Your task to perform on an android device: open app "Messenger Lite" (install if not already installed) and enter user name: "cataclysmic@outlook.com" and password: "victoriously" Image 0: 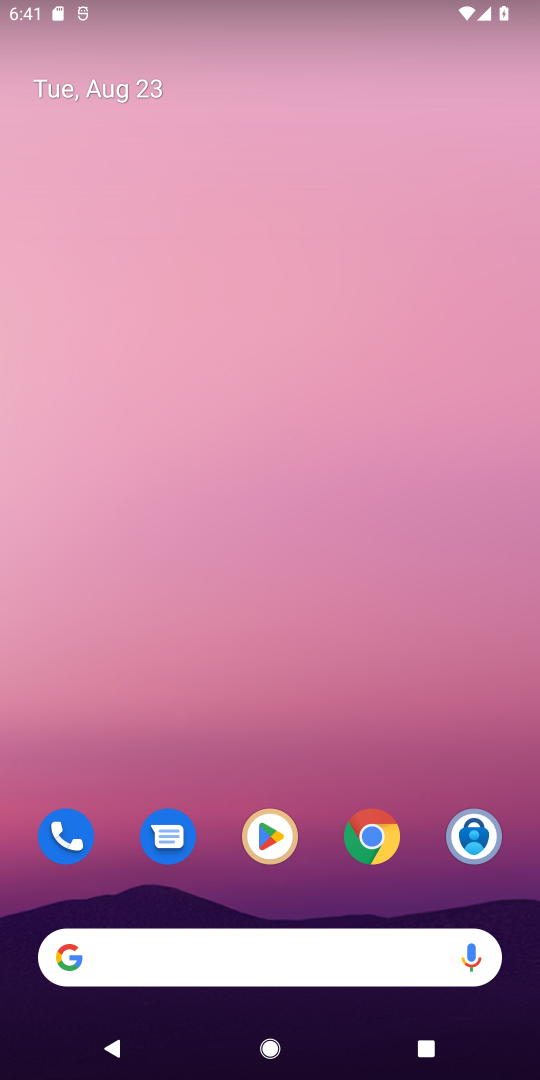
Step 0: click (274, 842)
Your task to perform on an android device: open app "Messenger Lite" (install if not already installed) and enter user name: "cataclysmic@outlook.com" and password: "victoriously" Image 1: 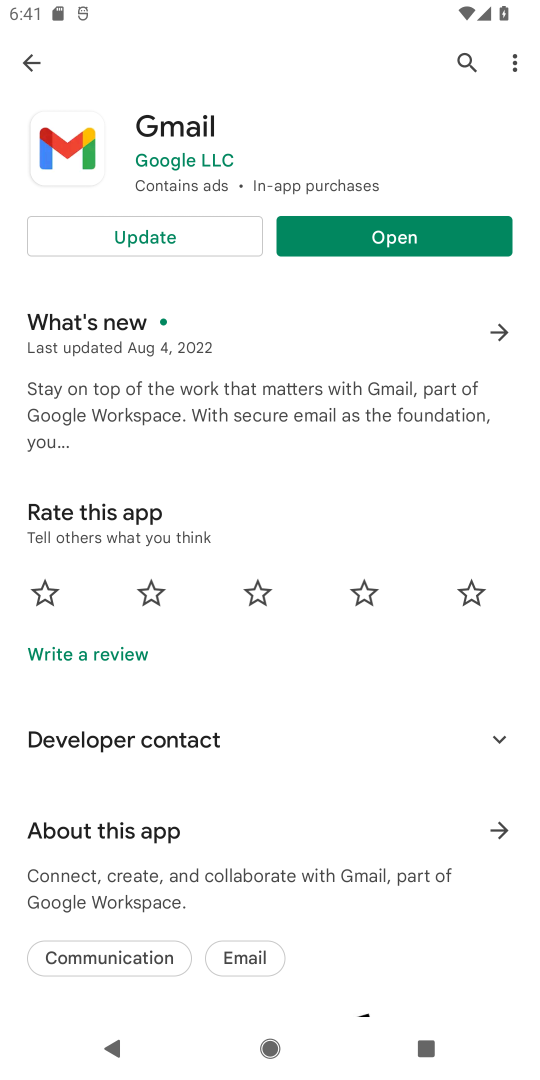
Step 1: click (462, 54)
Your task to perform on an android device: open app "Messenger Lite" (install if not already installed) and enter user name: "cataclysmic@outlook.com" and password: "victoriously" Image 2: 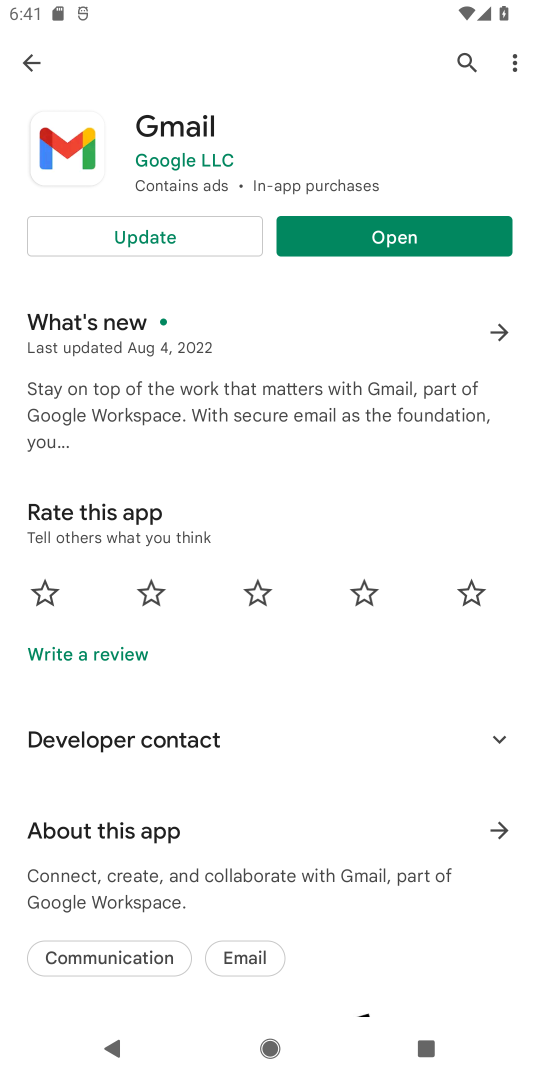
Step 2: click (466, 59)
Your task to perform on an android device: open app "Messenger Lite" (install if not already installed) and enter user name: "cataclysmic@outlook.com" and password: "victoriously" Image 3: 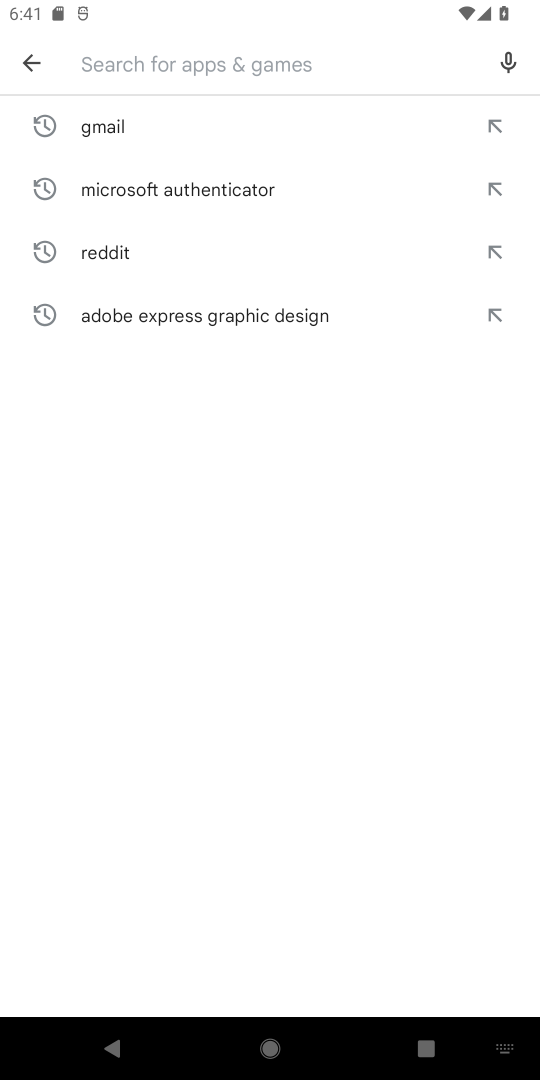
Step 3: type "Messenger Lite"
Your task to perform on an android device: open app "Messenger Lite" (install if not already installed) and enter user name: "cataclysmic@outlook.com" and password: "victoriously" Image 4: 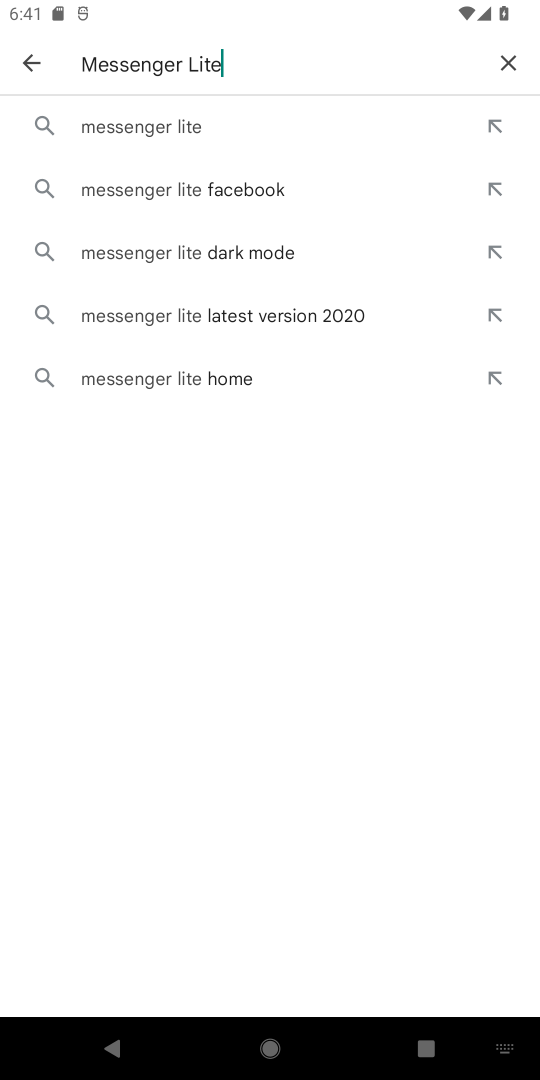
Step 4: click (181, 128)
Your task to perform on an android device: open app "Messenger Lite" (install if not already installed) and enter user name: "cataclysmic@outlook.com" and password: "victoriously" Image 5: 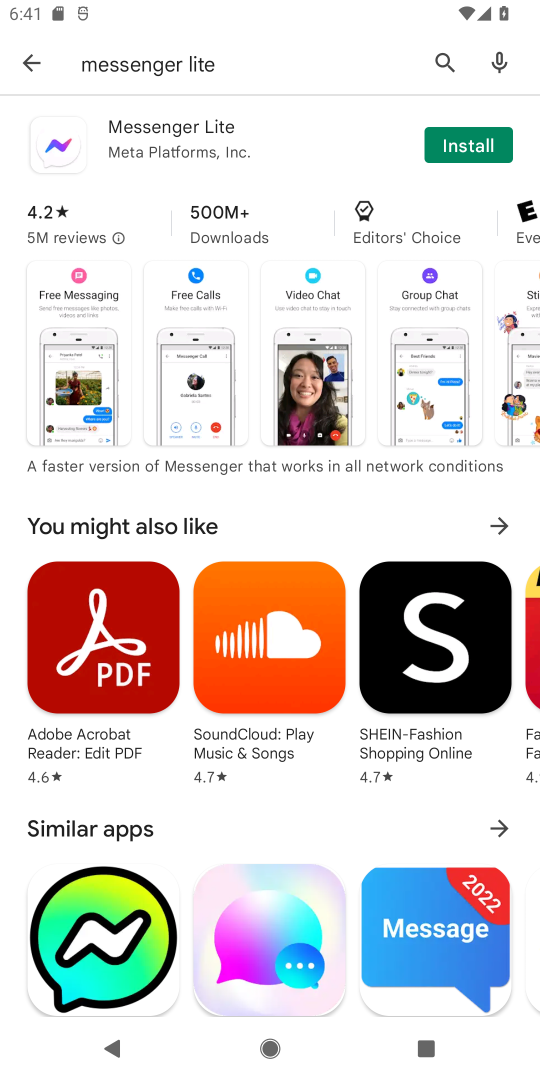
Step 5: click (474, 140)
Your task to perform on an android device: open app "Messenger Lite" (install if not already installed) and enter user name: "cataclysmic@outlook.com" and password: "victoriously" Image 6: 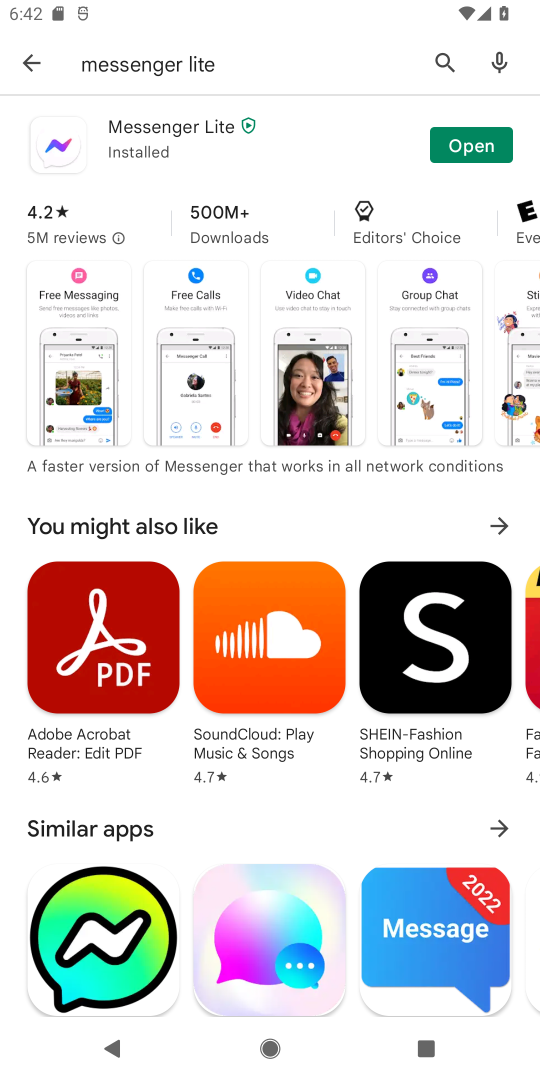
Step 6: click (462, 139)
Your task to perform on an android device: open app "Messenger Lite" (install if not already installed) and enter user name: "cataclysmic@outlook.com" and password: "victoriously" Image 7: 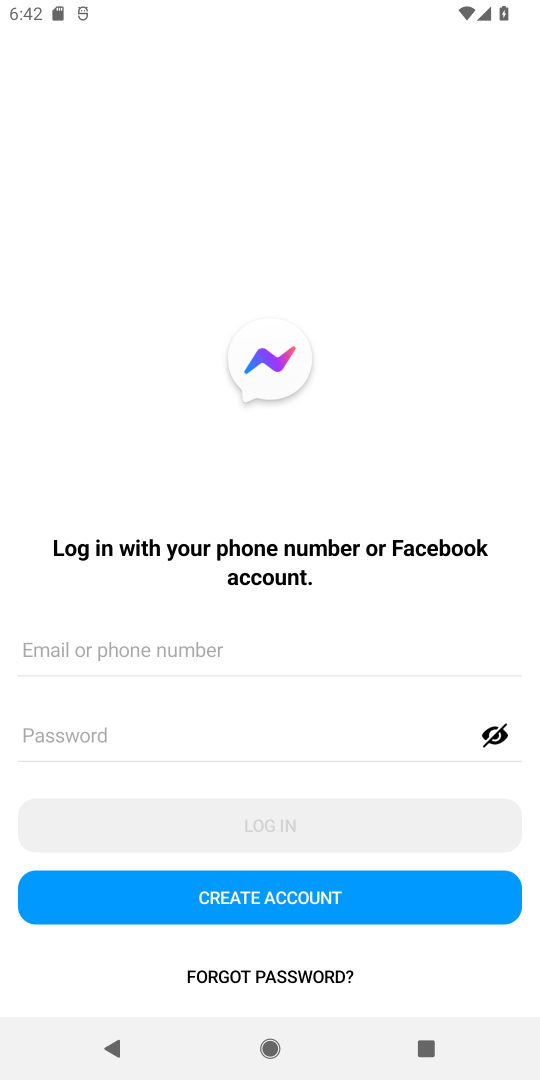
Step 7: click (58, 635)
Your task to perform on an android device: open app "Messenger Lite" (install if not already installed) and enter user name: "cataclysmic@outlook.com" and password: "victoriously" Image 8: 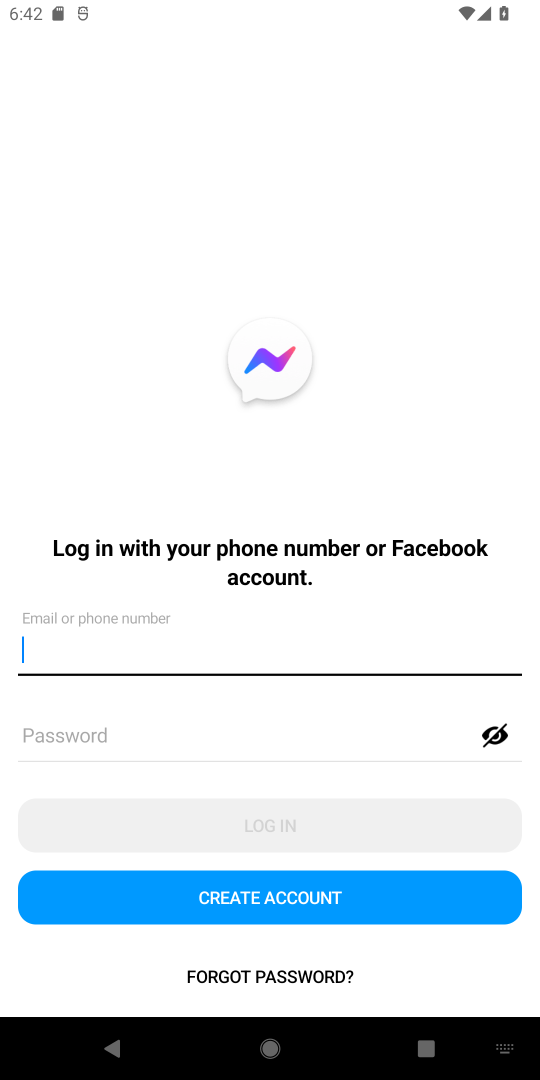
Step 8: type "cataclysmic@outlook.com"
Your task to perform on an android device: open app "Messenger Lite" (install if not already installed) and enter user name: "cataclysmic@outlook.com" and password: "victoriously" Image 9: 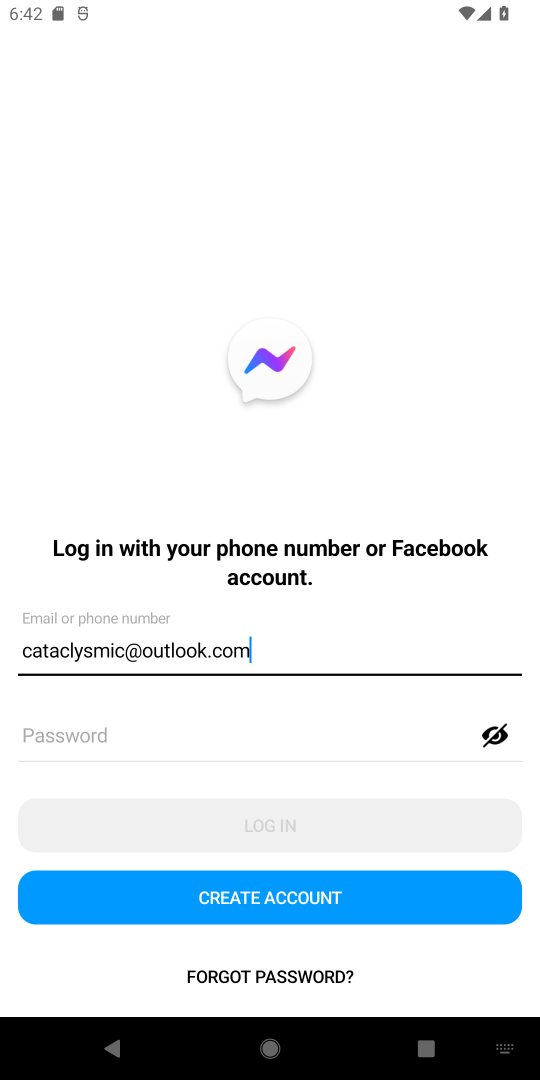
Step 9: click (185, 723)
Your task to perform on an android device: open app "Messenger Lite" (install if not already installed) and enter user name: "cataclysmic@outlook.com" and password: "victoriously" Image 10: 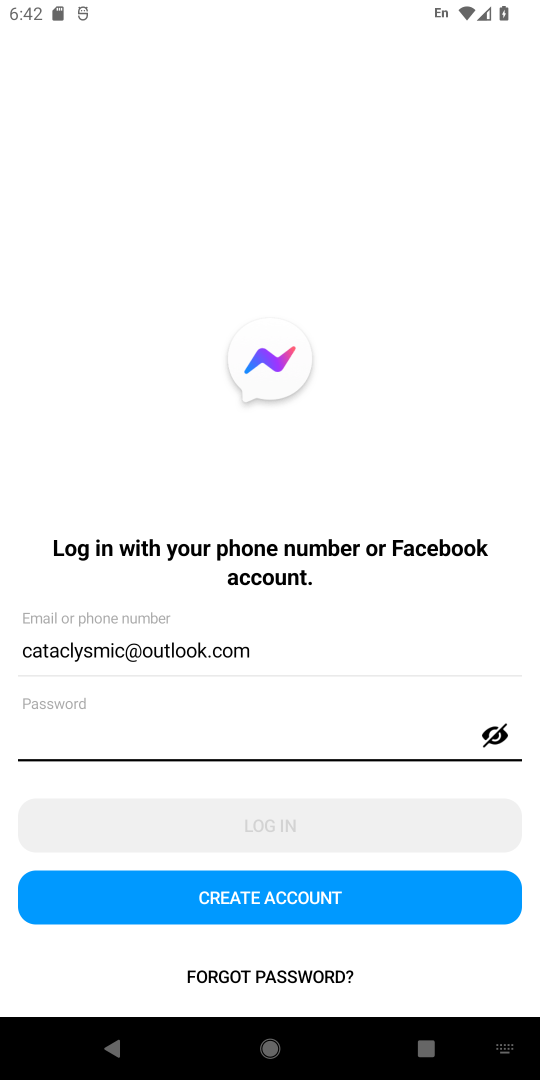
Step 10: type "victoriously"
Your task to perform on an android device: open app "Messenger Lite" (install if not already installed) and enter user name: "cataclysmic@outlook.com" and password: "victoriously" Image 11: 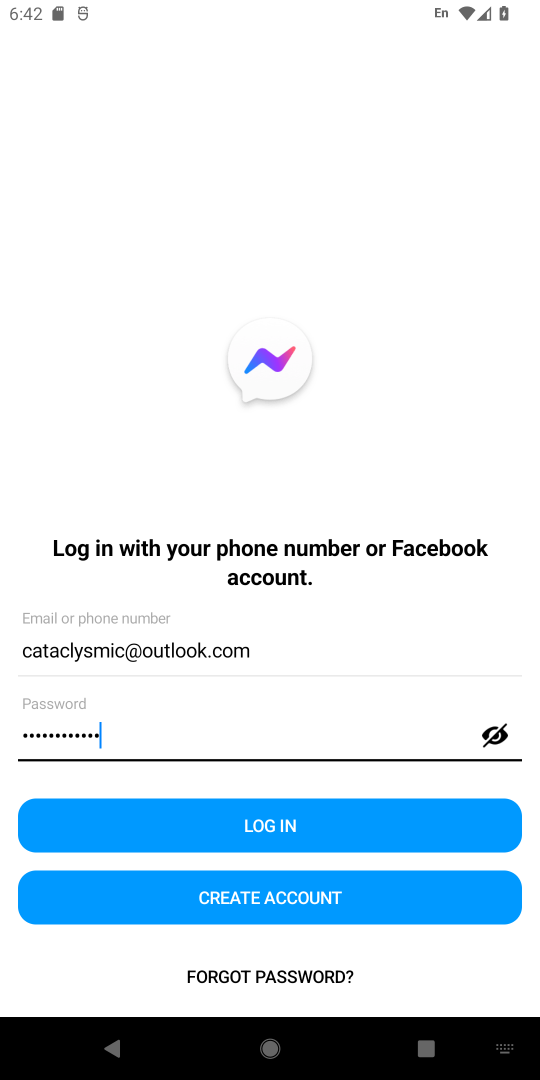
Step 11: task complete